Your task to perform on an android device: Open wifi settings Image 0: 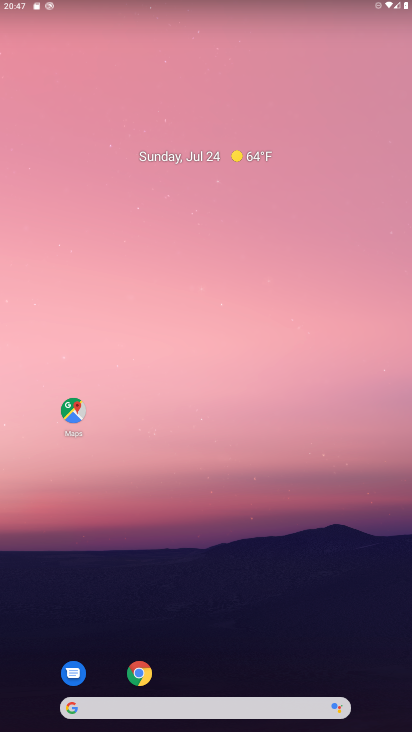
Step 0: drag from (245, 8) to (279, 473)
Your task to perform on an android device: Open wifi settings Image 1: 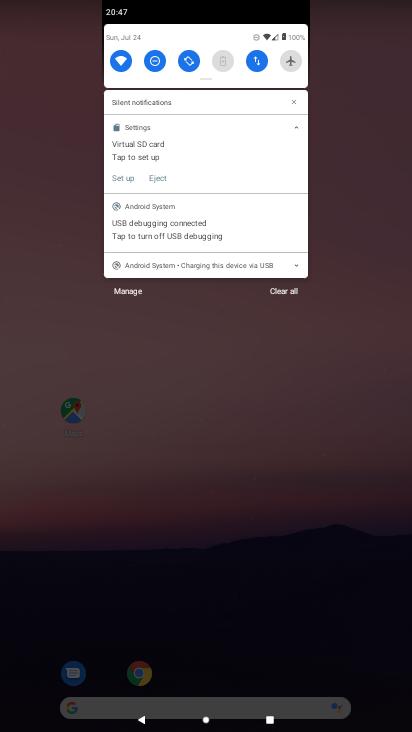
Step 1: click (121, 63)
Your task to perform on an android device: Open wifi settings Image 2: 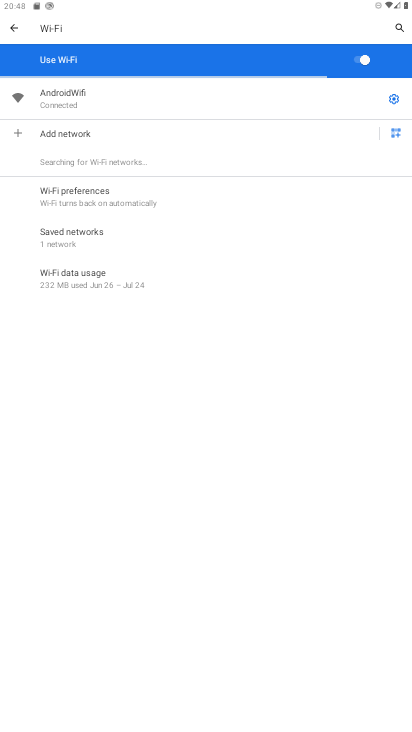
Step 2: task complete